Your task to perform on an android device: check android version Image 0: 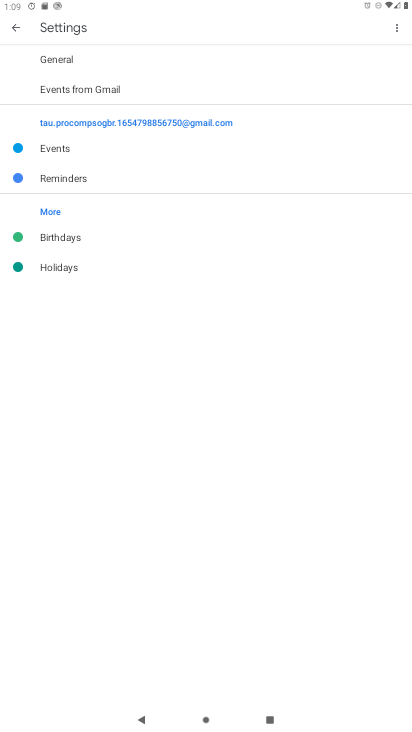
Step 0: press home button
Your task to perform on an android device: check android version Image 1: 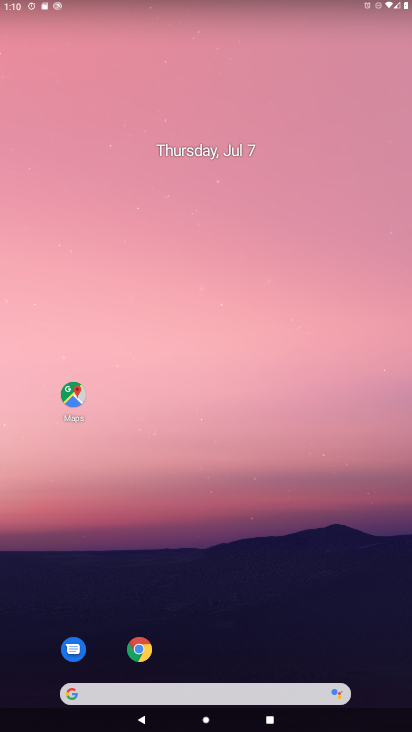
Step 1: drag from (188, 675) to (97, 214)
Your task to perform on an android device: check android version Image 2: 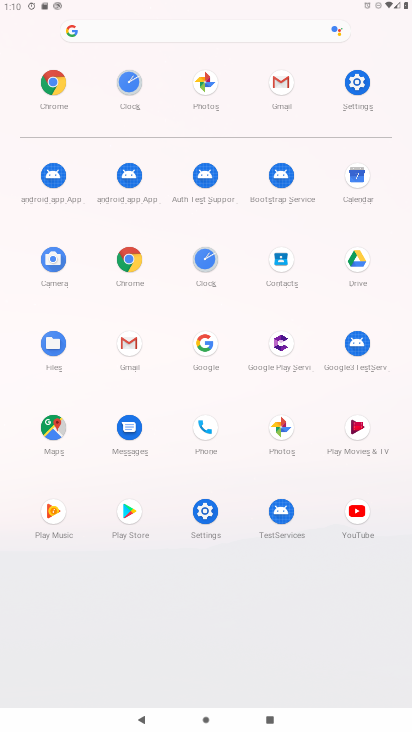
Step 2: click (200, 494)
Your task to perform on an android device: check android version Image 3: 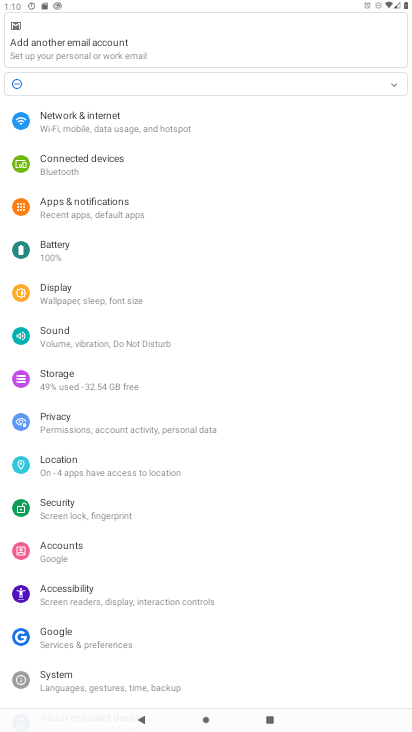
Step 3: drag from (83, 634) to (62, 389)
Your task to perform on an android device: check android version Image 4: 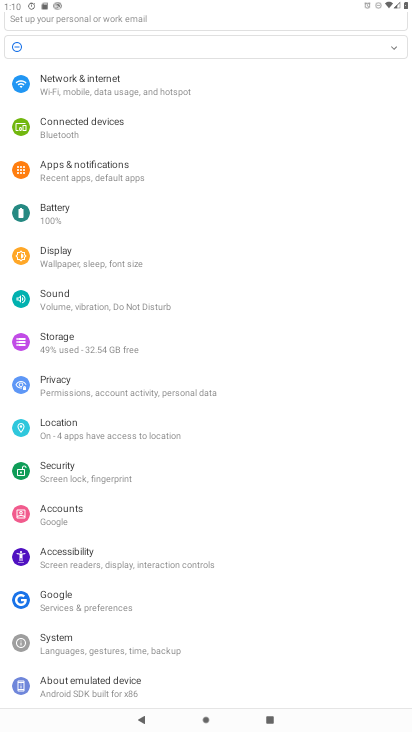
Step 4: click (111, 668)
Your task to perform on an android device: check android version Image 5: 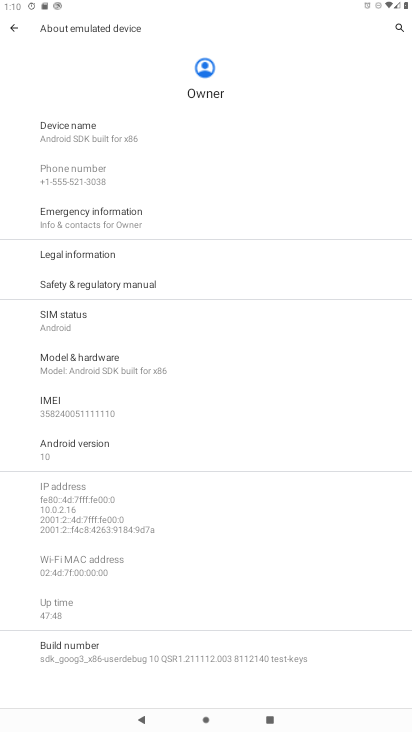
Step 5: click (54, 447)
Your task to perform on an android device: check android version Image 6: 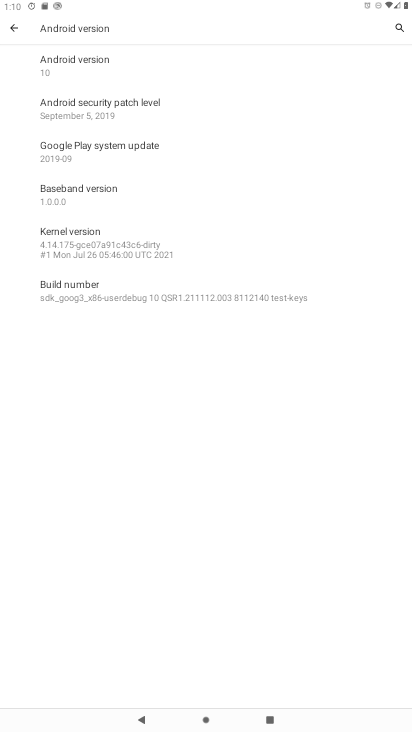
Step 6: click (92, 68)
Your task to perform on an android device: check android version Image 7: 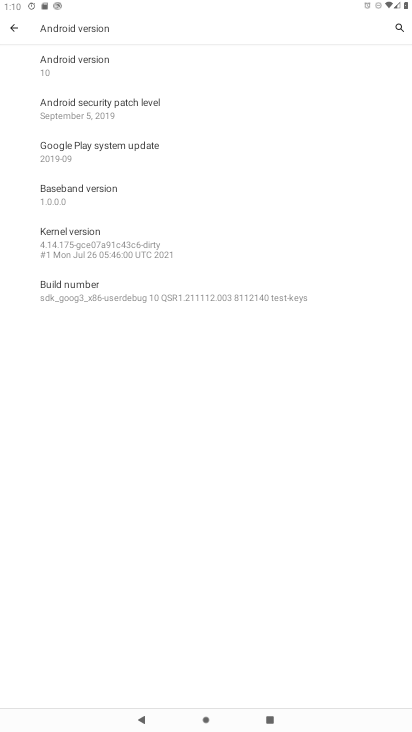
Step 7: task complete